Your task to perform on an android device: search for starred emails in the gmail app Image 0: 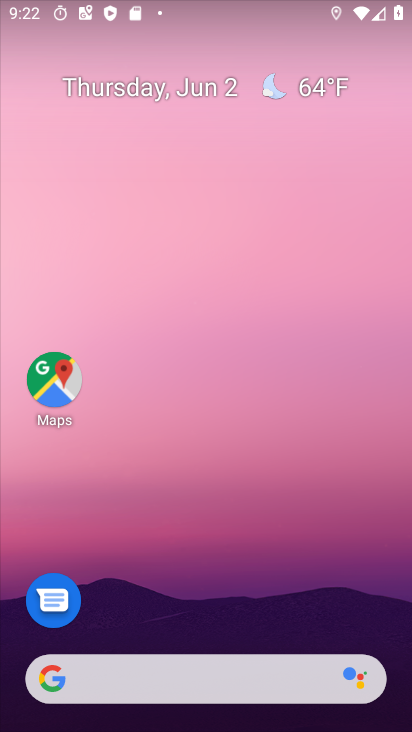
Step 0: drag from (208, 605) to (208, 55)
Your task to perform on an android device: search for starred emails in the gmail app Image 1: 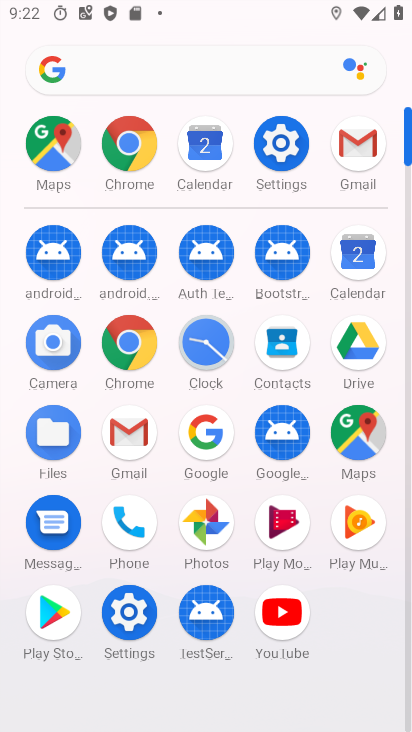
Step 1: click (136, 431)
Your task to perform on an android device: search for starred emails in the gmail app Image 2: 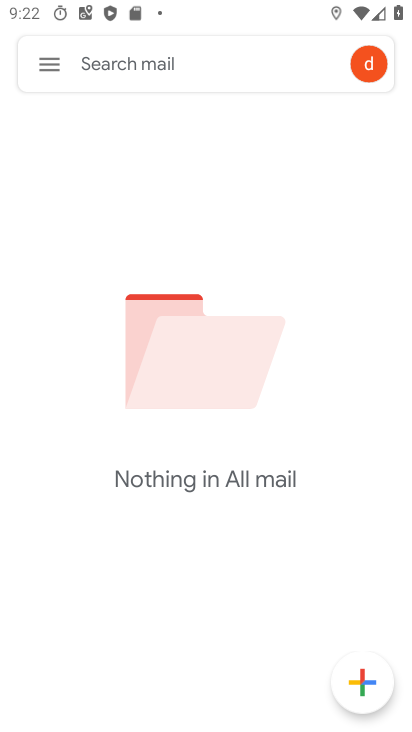
Step 2: click (46, 66)
Your task to perform on an android device: search for starred emails in the gmail app Image 3: 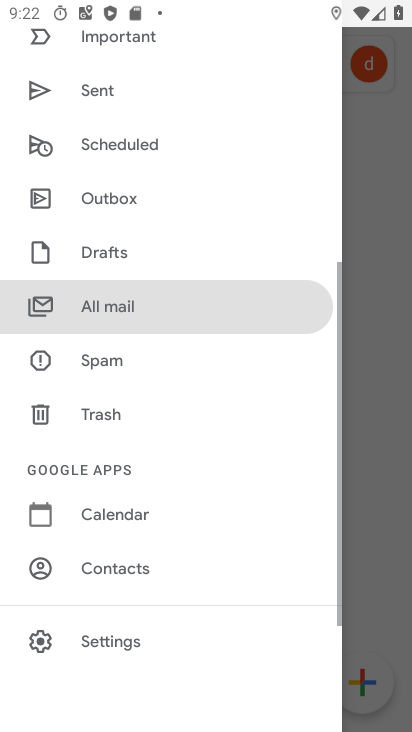
Step 3: drag from (200, 321) to (212, 560)
Your task to perform on an android device: search for starred emails in the gmail app Image 4: 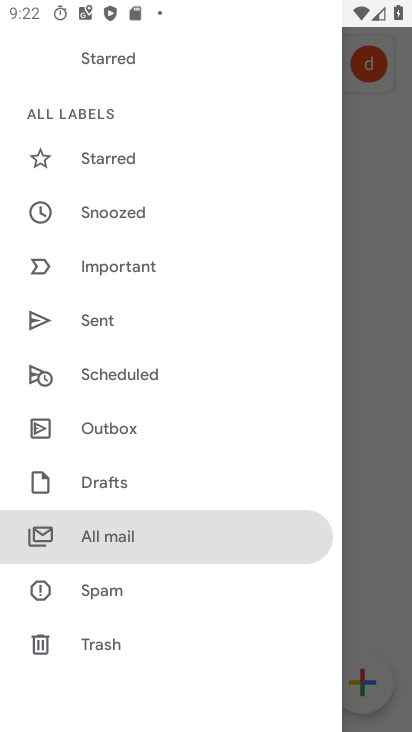
Step 4: click (108, 164)
Your task to perform on an android device: search for starred emails in the gmail app Image 5: 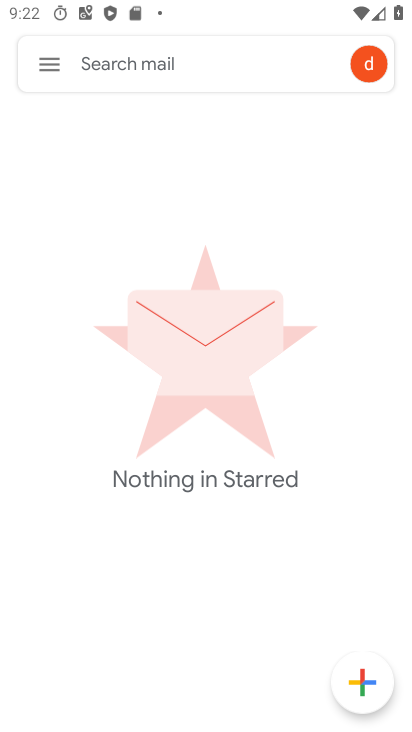
Step 5: task complete